Your task to perform on an android device: What's the weather going to be this weekend? Image 0: 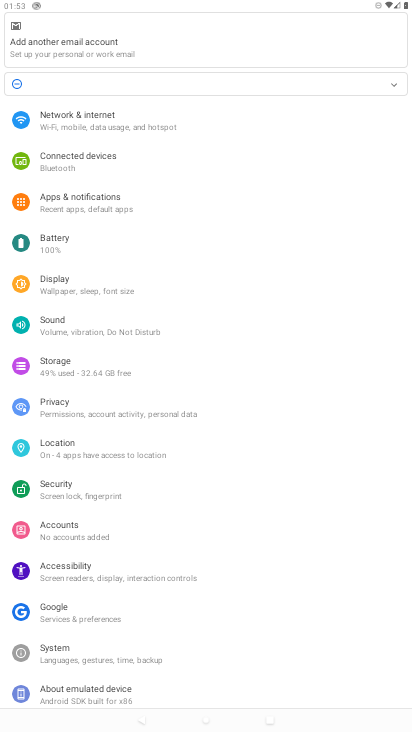
Step 0: press home button
Your task to perform on an android device: What's the weather going to be this weekend? Image 1: 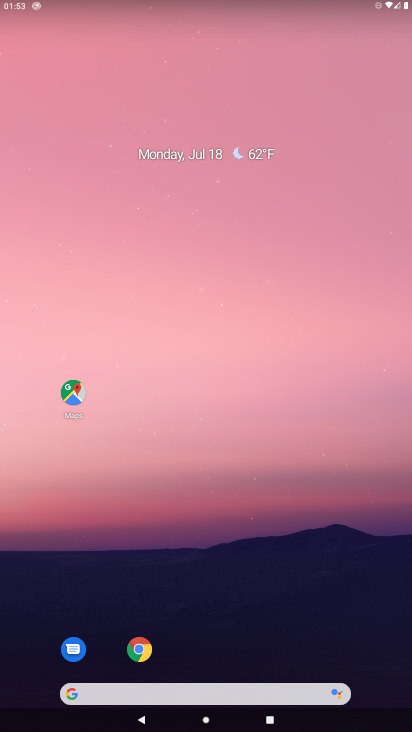
Step 1: click (113, 687)
Your task to perform on an android device: What's the weather going to be this weekend? Image 2: 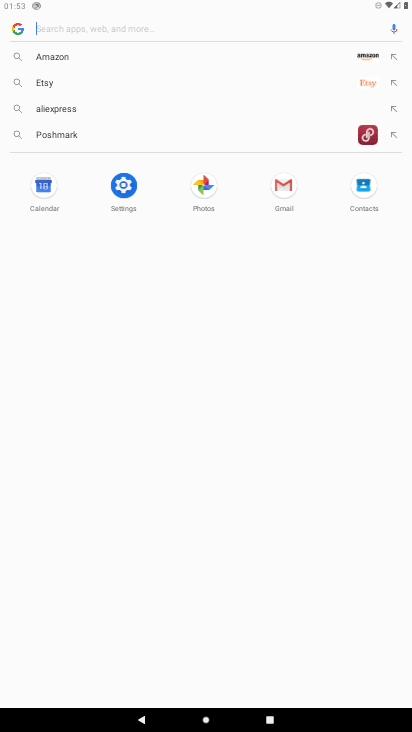
Step 2: type "What's the weather going to be this weekend?"
Your task to perform on an android device: What's the weather going to be this weekend? Image 3: 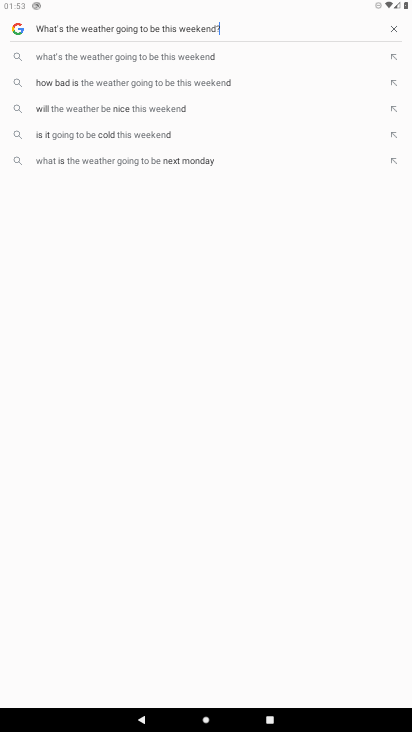
Step 3: type ""
Your task to perform on an android device: What's the weather going to be this weekend? Image 4: 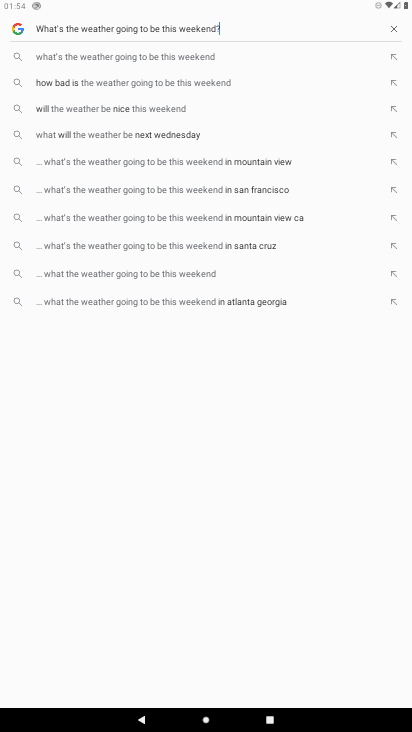
Step 4: click (179, 53)
Your task to perform on an android device: What's the weather going to be this weekend? Image 5: 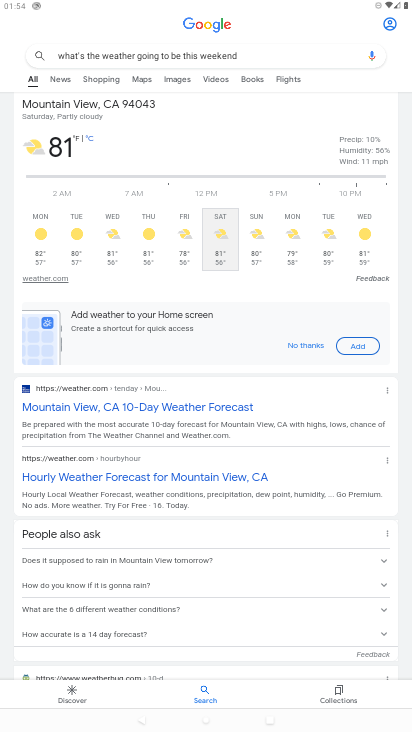
Step 5: task complete